Your task to perform on an android device: turn off location history Image 0: 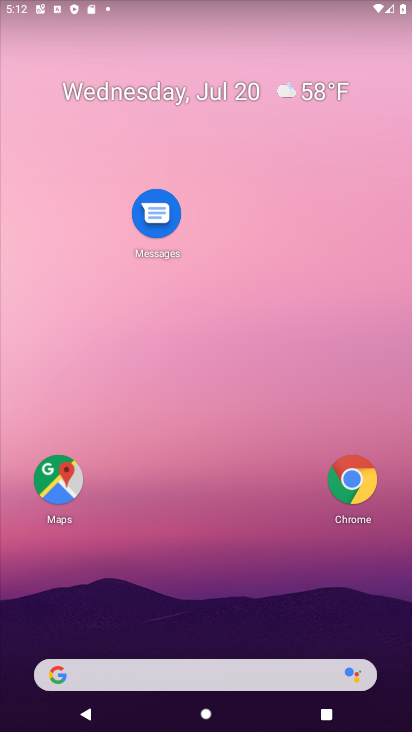
Step 0: drag from (174, 471) to (185, 198)
Your task to perform on an android device: turn off location history Image 1: 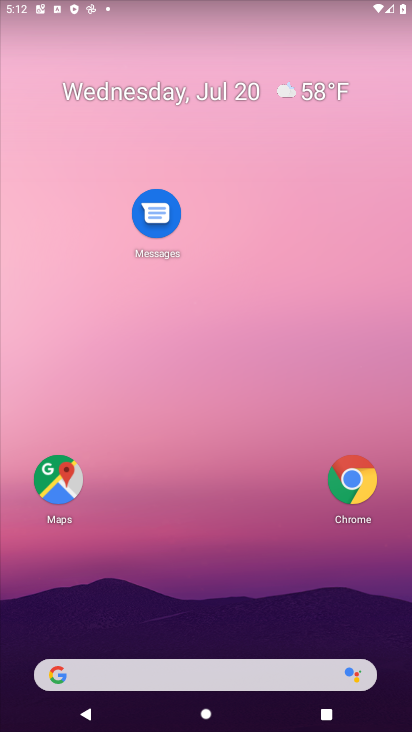
Step 1: drag from (175, 615) to (157, 29)
Your task to perform on an android device: turn off location history Image 2: 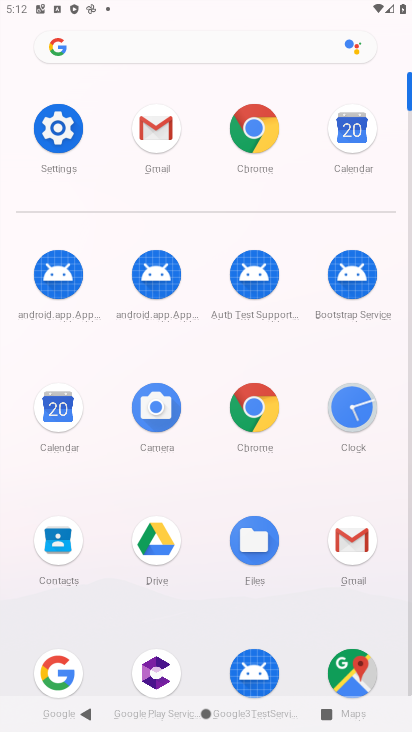
Step 2: click (56, 130)
Your task to perform on an android device: turn off location history Image 3: 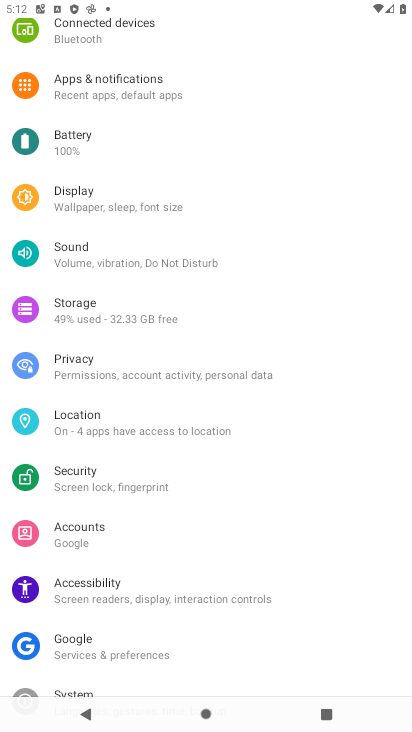
Step 3: click (67, 422)
Your task to perform on an android device: turn off location history Image 4: 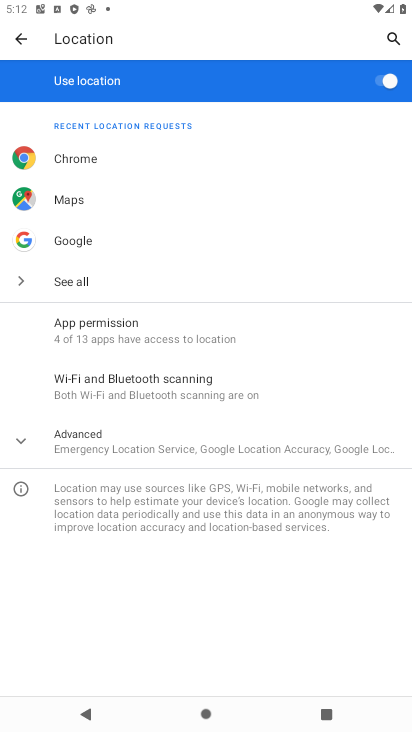
Step 4: click (84, 447)
Your task to perform on an android device: turn off location history Image 5: 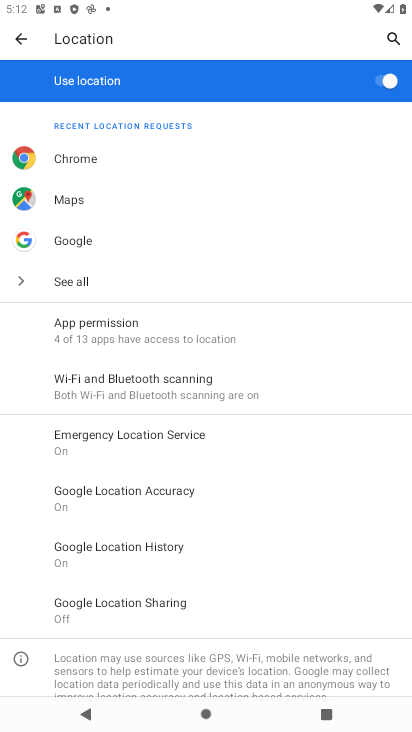
Step 5: click (82, 548)
Your task to perform on an android device: turn off location history Image 6: 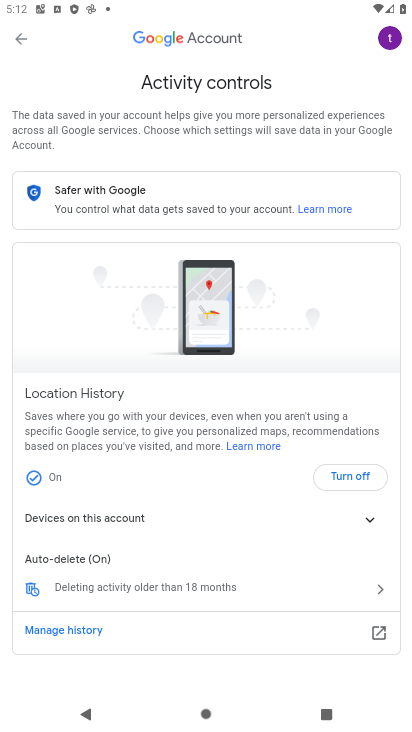
Step 6: click (333, 470)
Your task to perform on an android device: turn off location history Image 7: 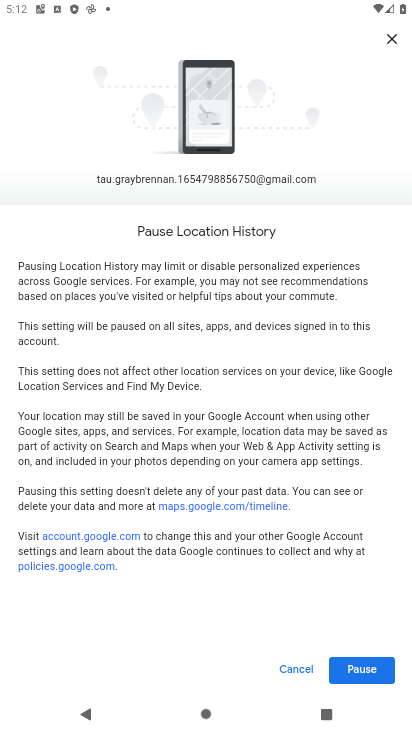
Step 7: click (354, 670)
Your task to perform on an android device: turn off location history Image 8: 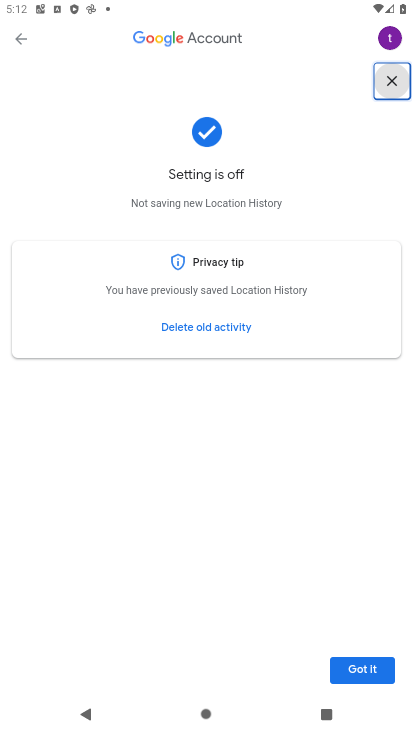
Step 8: click (354, 670)
Your task to perform on an android device: turn off location history Image 9: 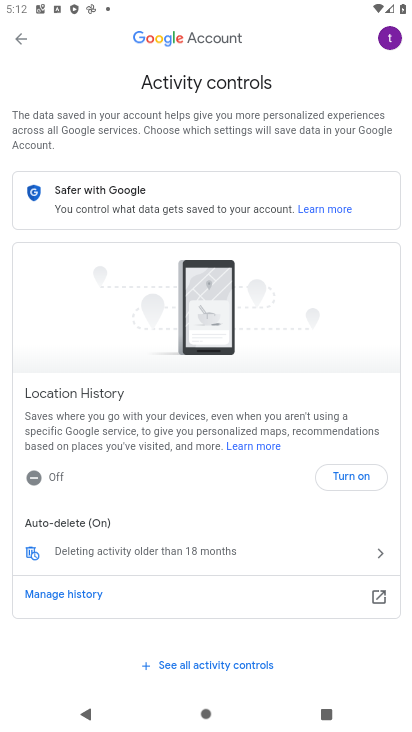
Step 9: task complete